Your task to perform on an android device: turn on the 12-hour format for clock Image 0: 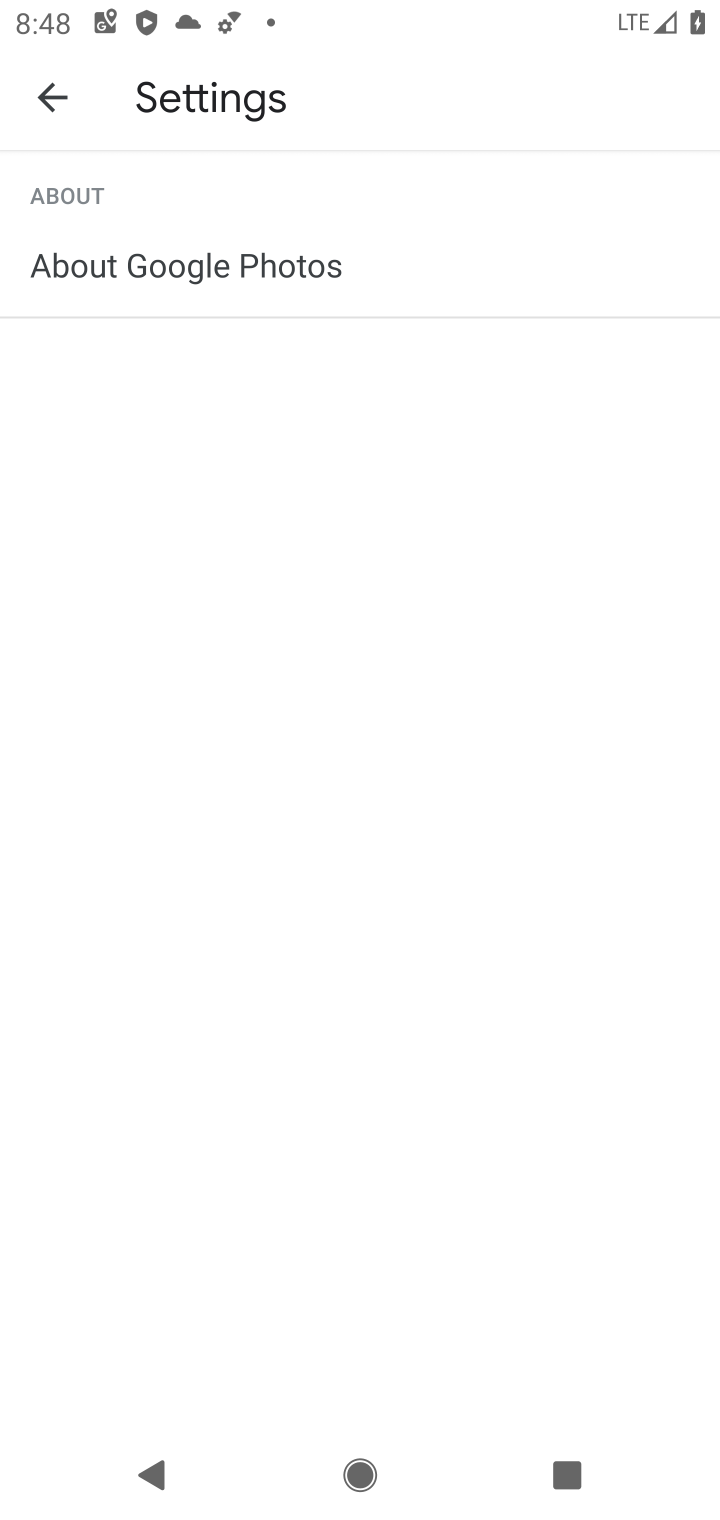
Step 0: press home button
Your task to perform on an android device: turn on the 12-hour format for clock Image 1: 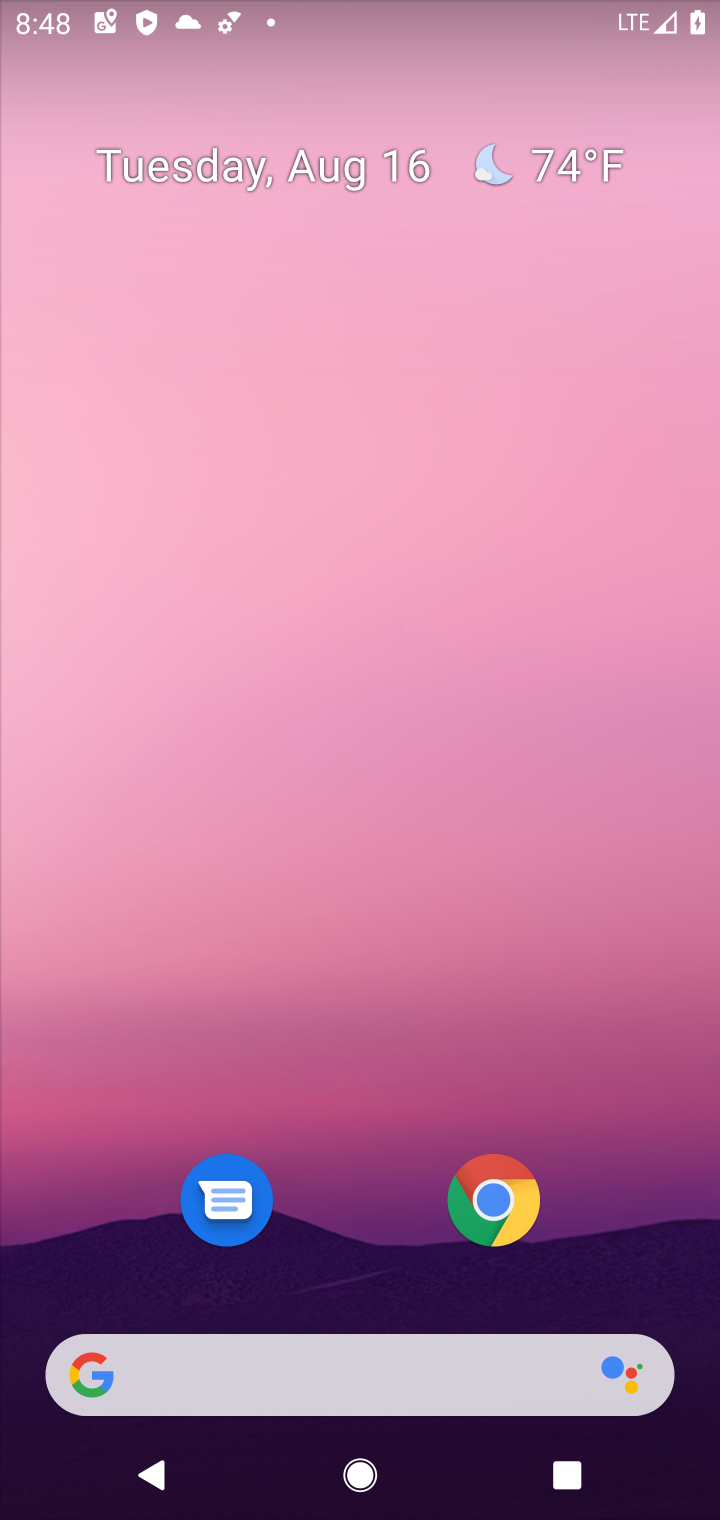
Step 1: drag from (676, 1266) to (597, 475)
Your task to perform on an android device: turn on the 12-hour format for clock Image 2: 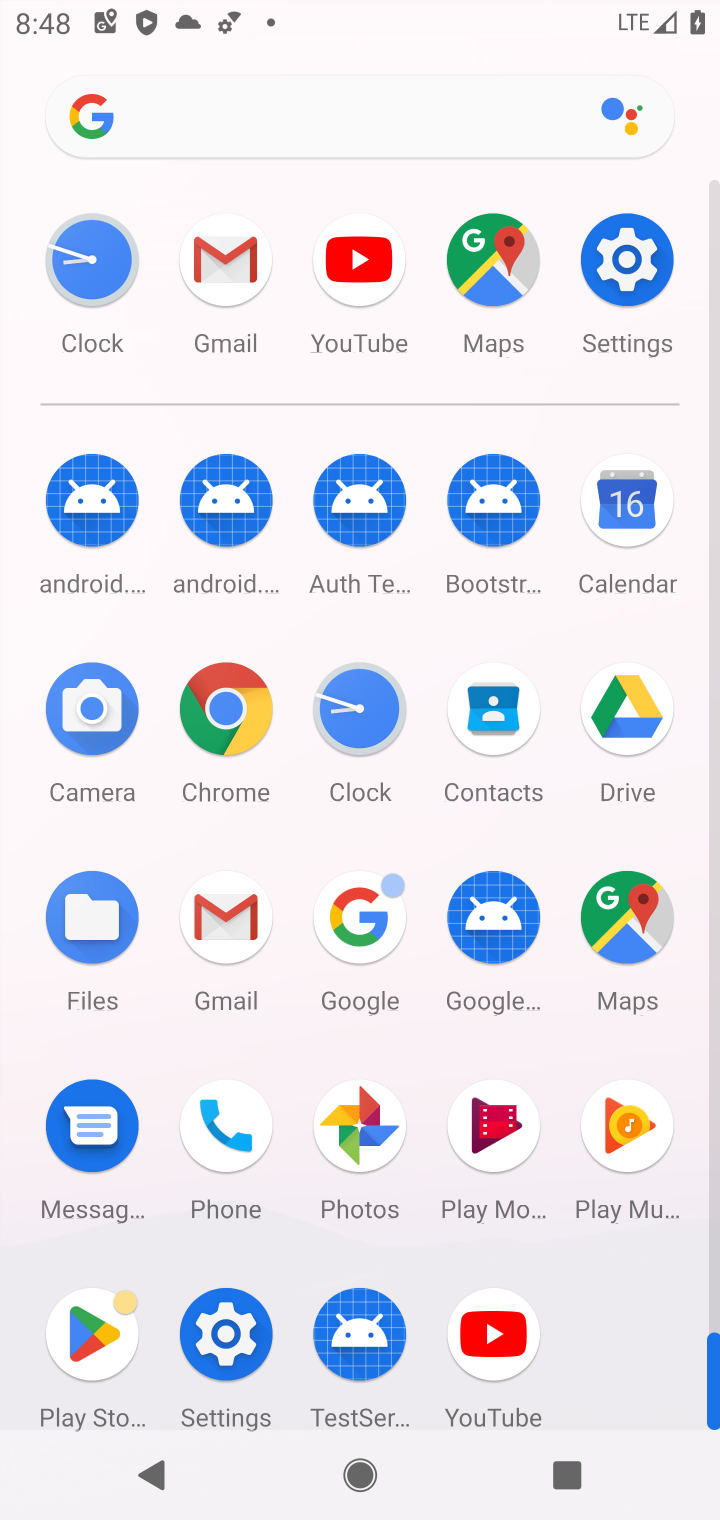
Step 2: click (359, 707)
Your task to perform on an android device: turn on the 12-hour format for clock Image 3: 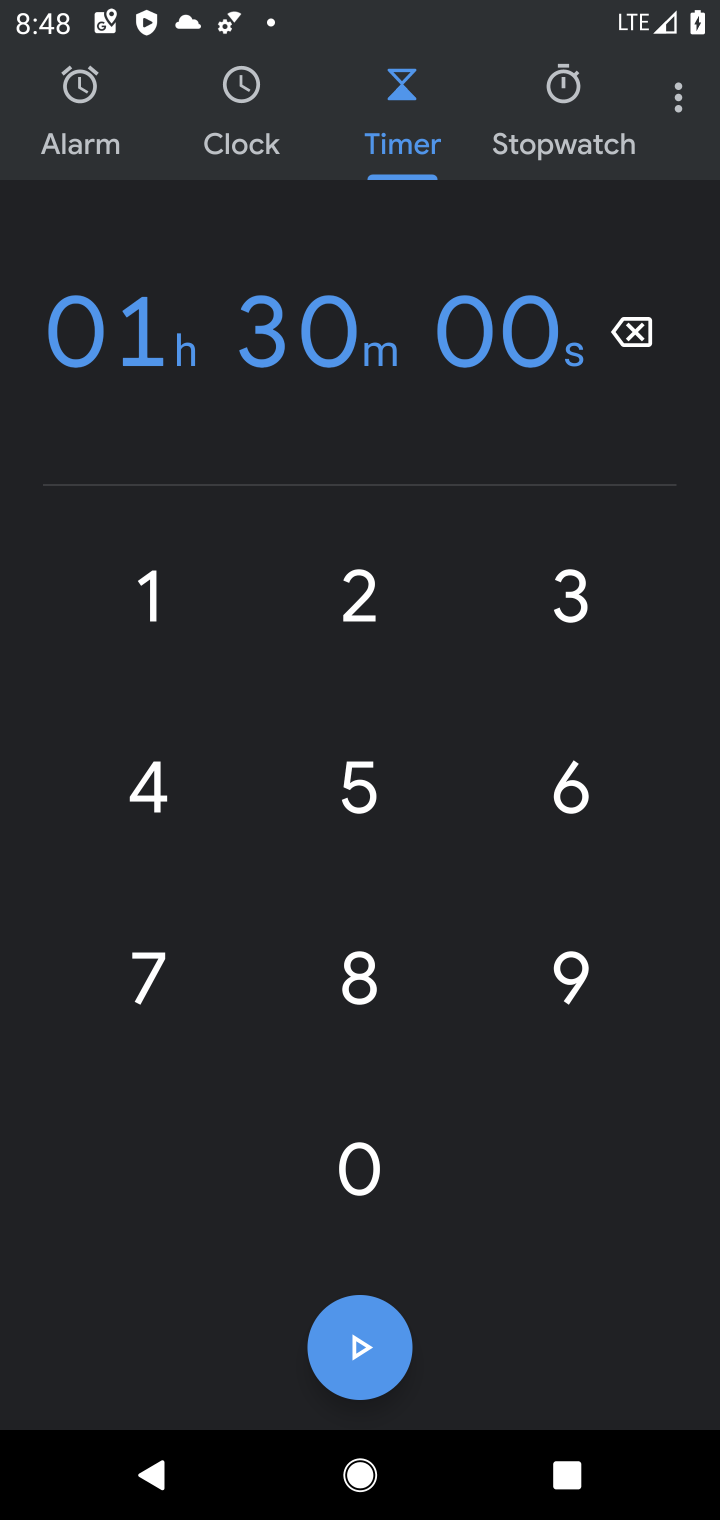
Step 3: click (669, 109)
Your task to perform on an android device: turn on the 12-hour format for clock Image 4: 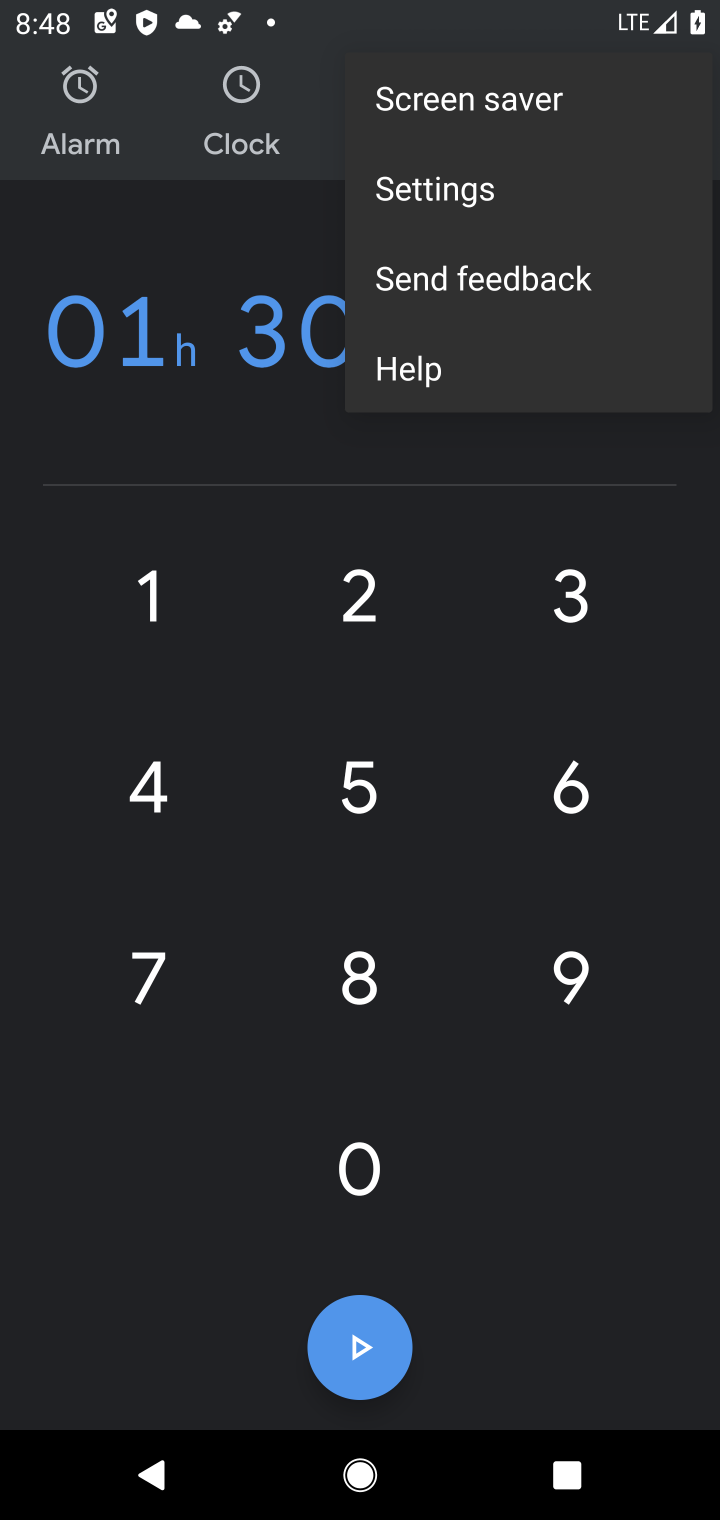
Step 4: click (432, 180)
Your task to perform on an android device: turn on the 12-hour format for clock Image 5: 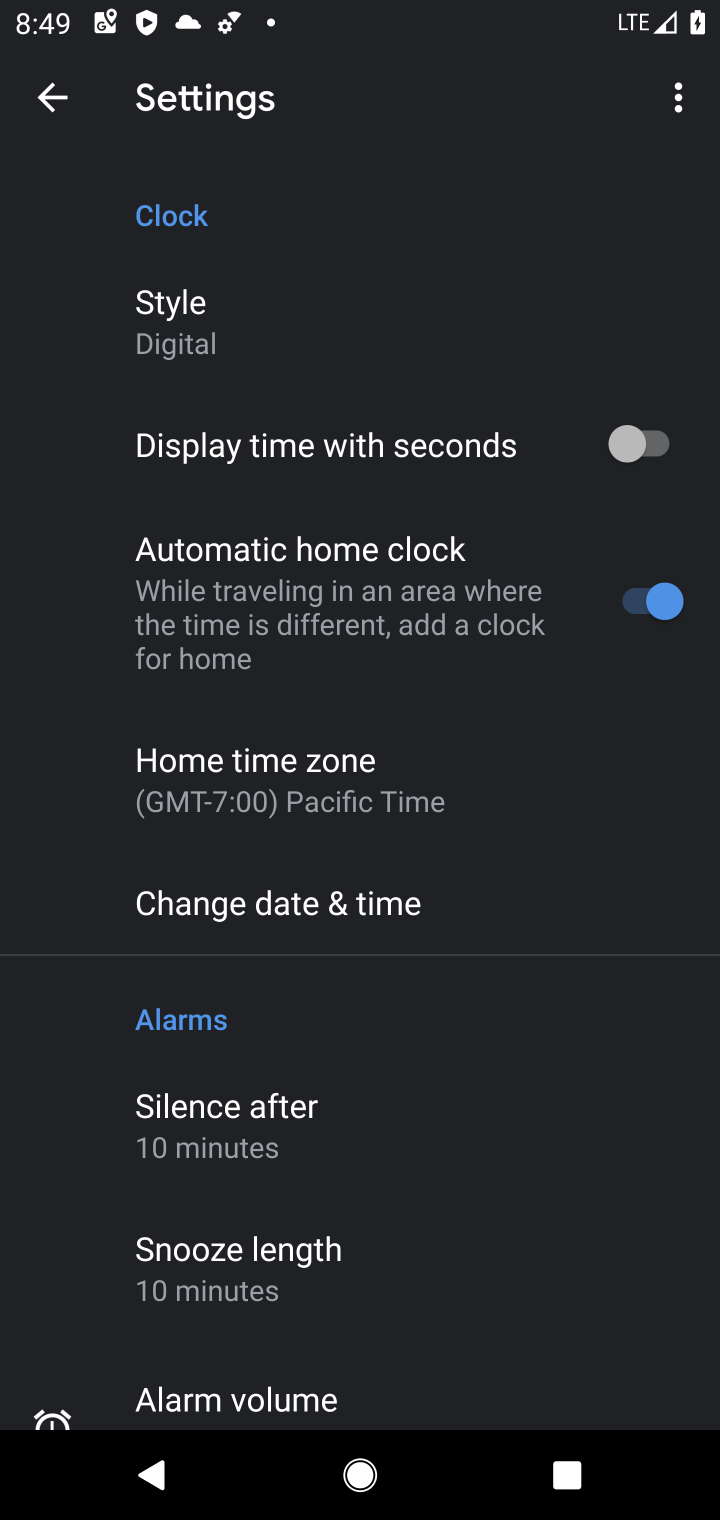
Step 5: click (316, 925)
Your task to perform on an android device: turn on the 12-hour format for clock Image 6: 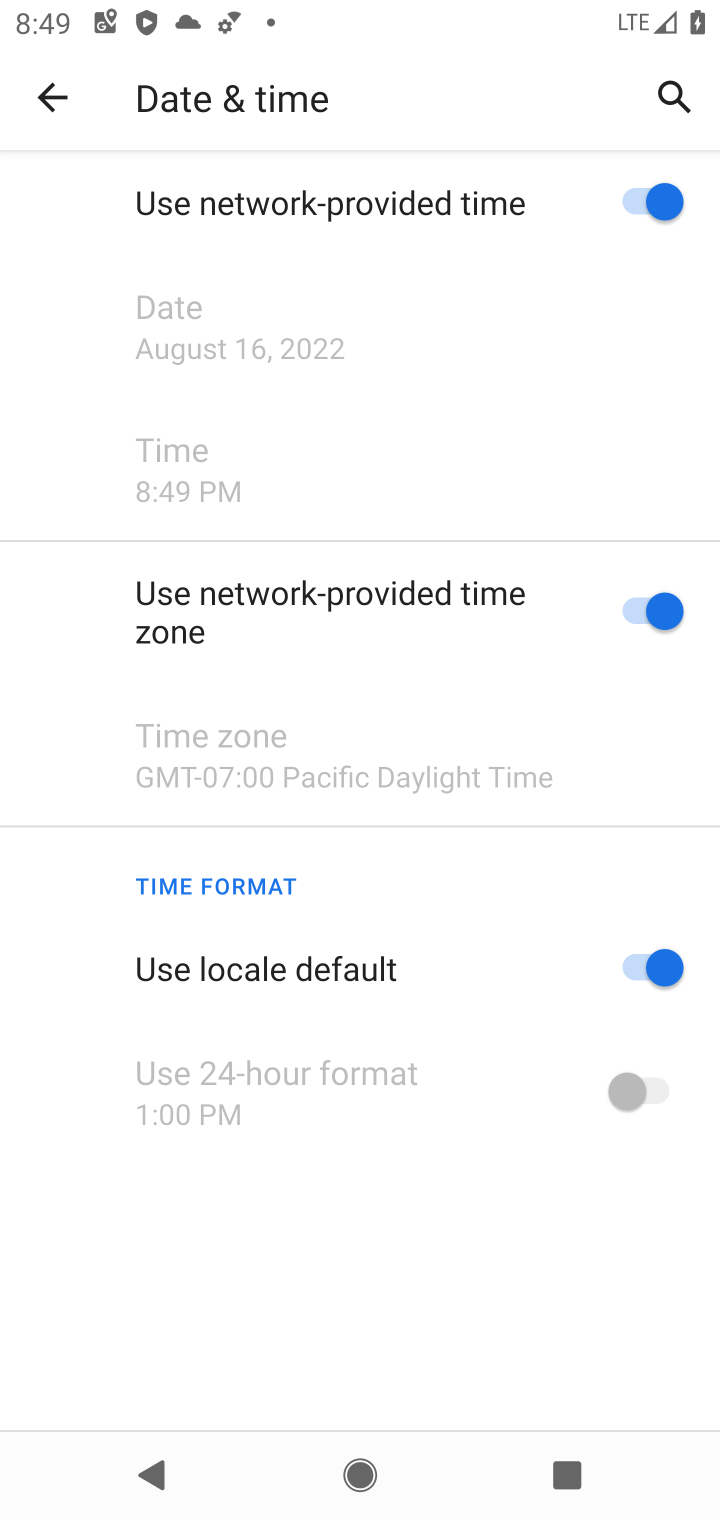
Step 6: task complete